Your task to perform on an android device: Show me popular videos on Youtube Image 0: 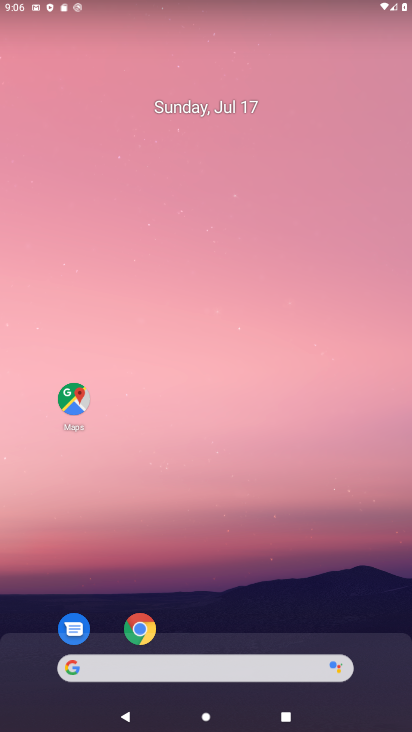
Step 0: drag from (248, 568) to (279, 74)
Your task to perform on an android device: Show me popular videos on Youtube Image 1: 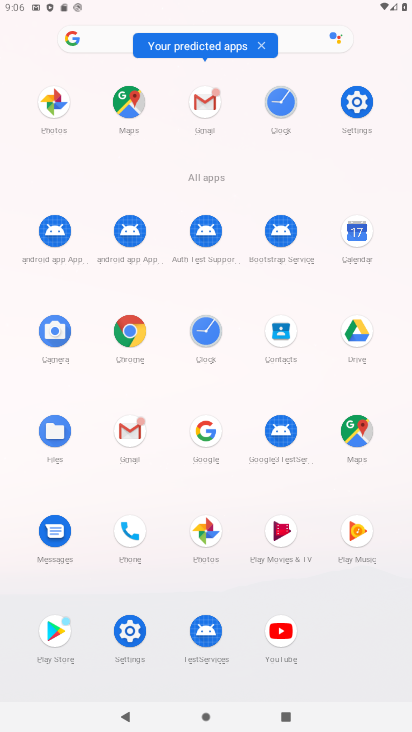
Step 1: click (353, 97)
Your task to perform on an android device: Show me popular videos on Youtube Image 2: 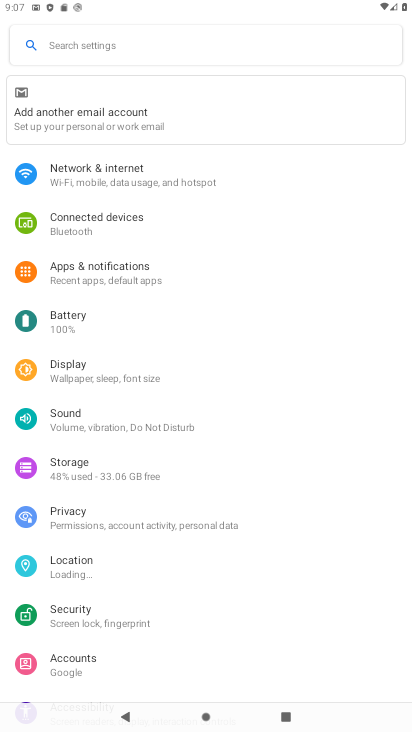
Step 2: click (93, 377)
Your task to perform on an android device: Show me popular videos on Youtube Image 3: 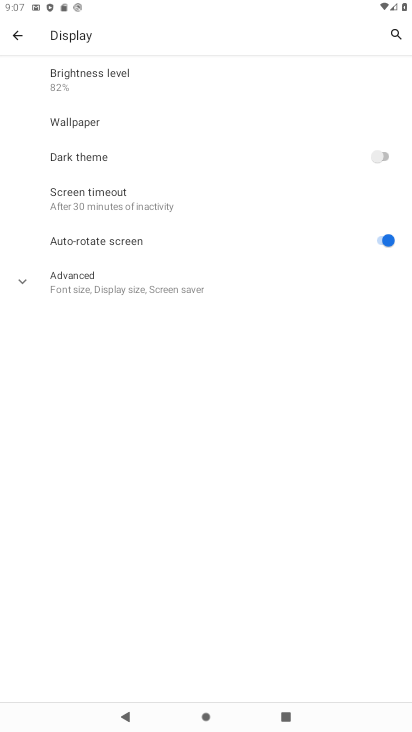
Step 3: click (93, 293)
Your task to perform on an android device: Show me popular videos on Youtube Image 4: 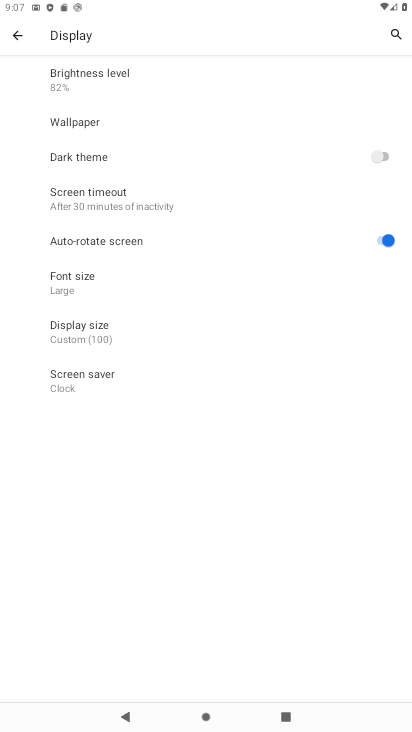
Step 4: click (74, 338)
Your task to perform on an android device: Show me popular videos on Youtube Image 5: 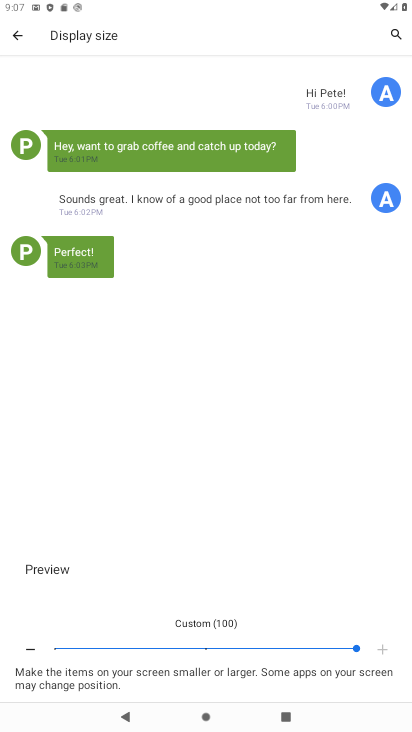
Step 5: click (201, 649)
Your task to perform on an android device: Show me popular videos on Youtube Image 6: 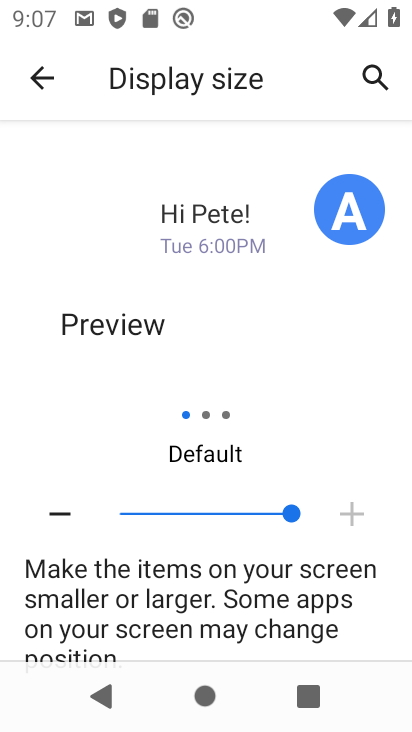
Step 6: click (41, 66)
Your task to perform on an android device: Show me popular videos on Youtube Image 7: 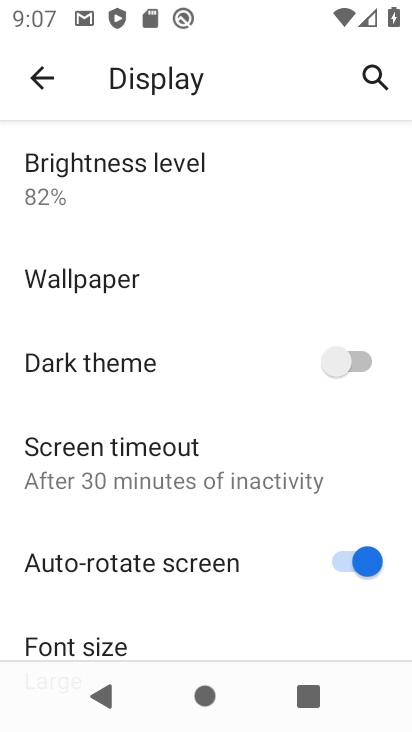
Step 7: press back button
Your task to perform on an android device: Show me popular videos on Youtube Image 8: 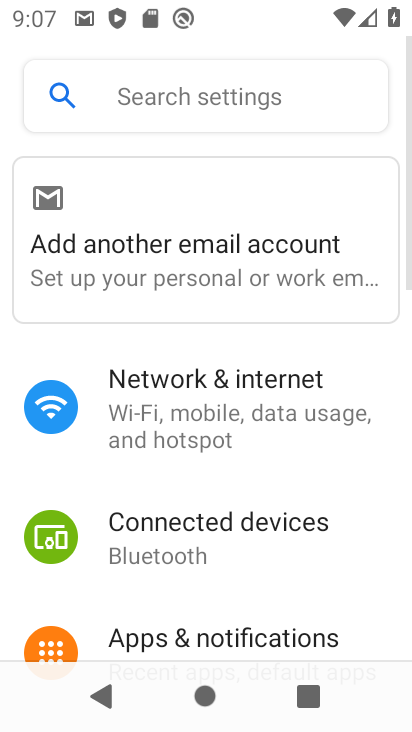
Step 8: press back button
Your task to perform on an android device: Show me popular videos on Youtube Image 9: 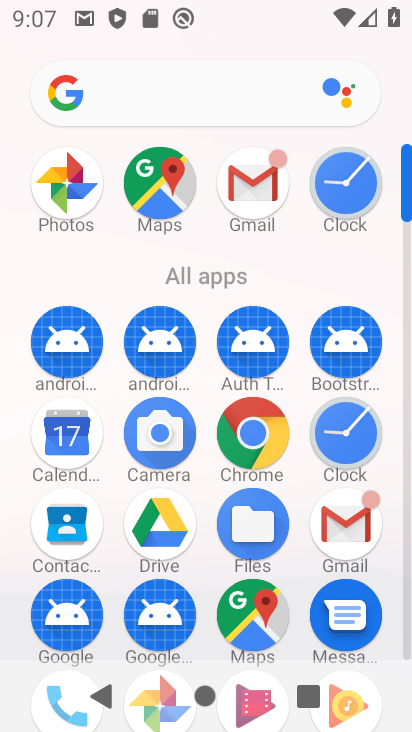
Step 9: drag from (194, 580) to (258, 60)
Your task to perform on an android device: Show me popular videos on Youtube Image 10: 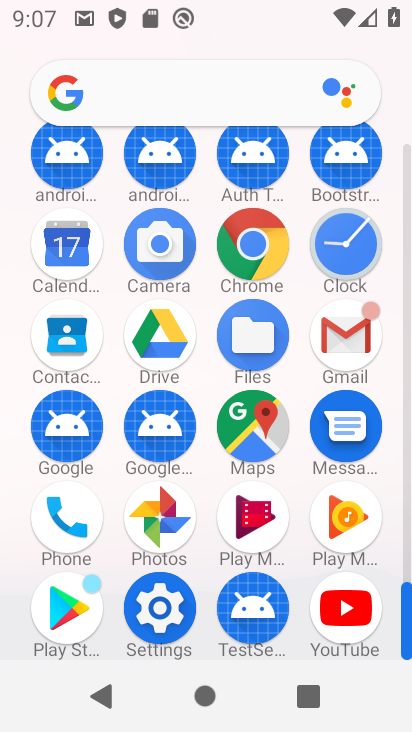
Step 10: click (353, 622)
Your task to perform on an android device: Show me popular videos on Youtube Image 11: 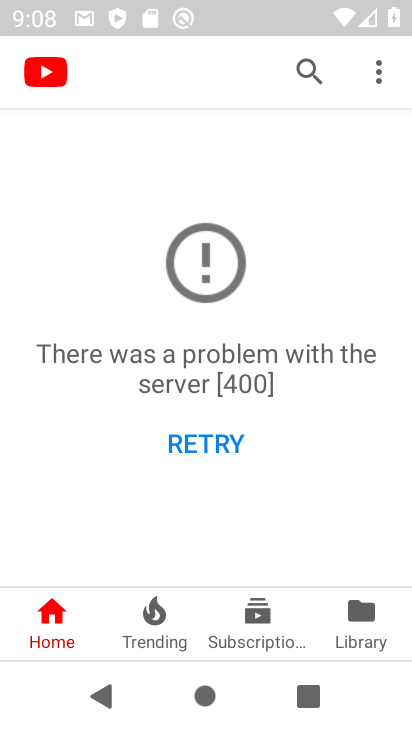
Step 11: task complete